Your task to perform on an android device: Open Google Chrome Image 0: 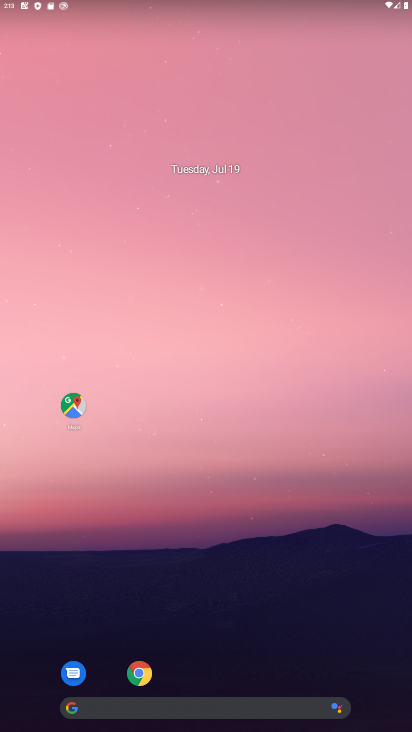
Step 0: click (138, 673)
Your task to perform on an android device: Open Google Chrome Image 1: 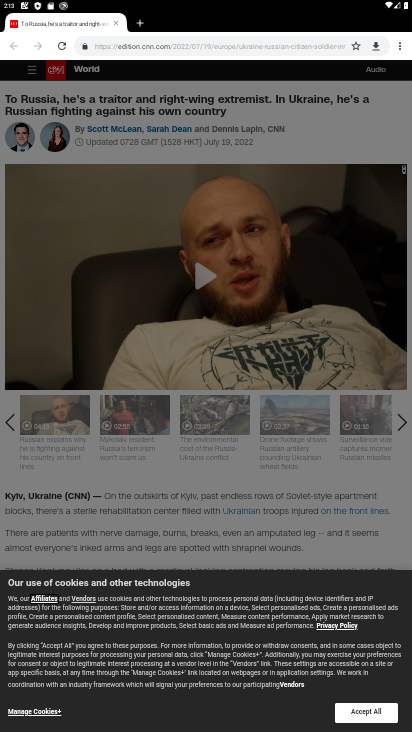
Step 1: task complete